Your task to perform on an android device: Open Google Maps Image 0: 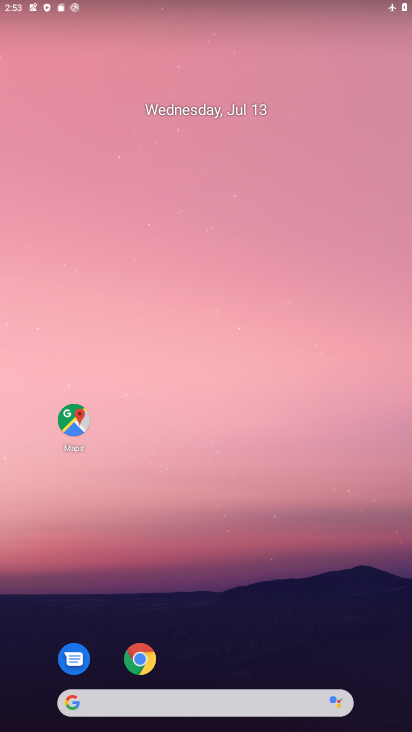
Step 0: click (73, 422)
Your task to perform on an android device: Open Google Maps Image 1: 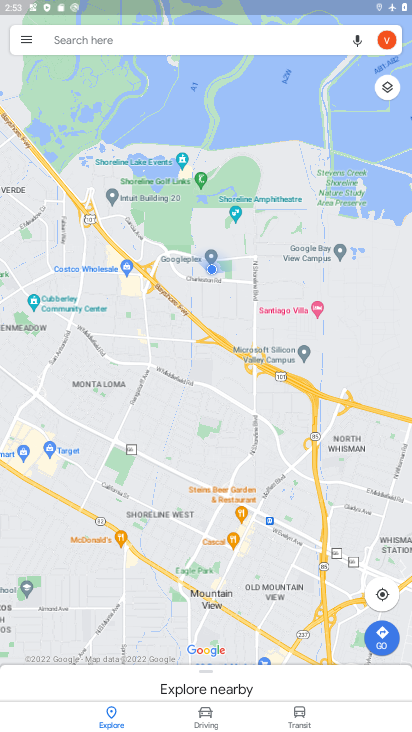
Step 1: task complete